Your task to perform on an android device: allow cookies in the chrome app Image 0: 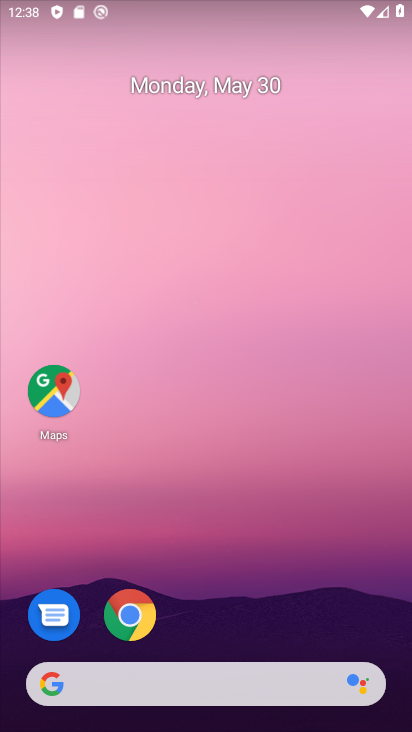
Step 0: click (128, 632)
Your task to perform on an android device: allow cookies in the chrome app Image 1: 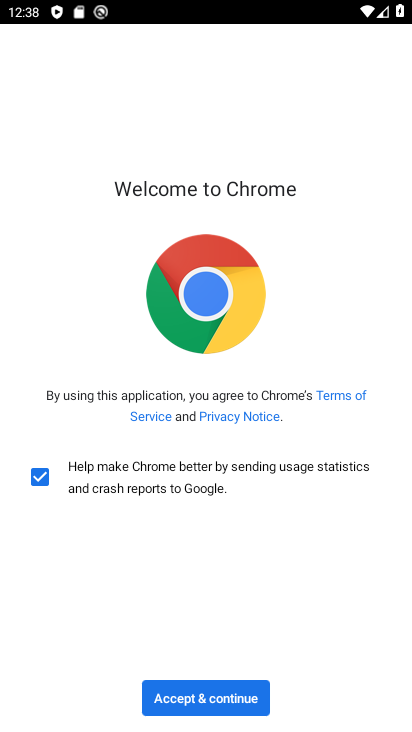
Step 1: click (192, 711)
Your task to perform on an android device: allow cookies in the chrome app Image 2: 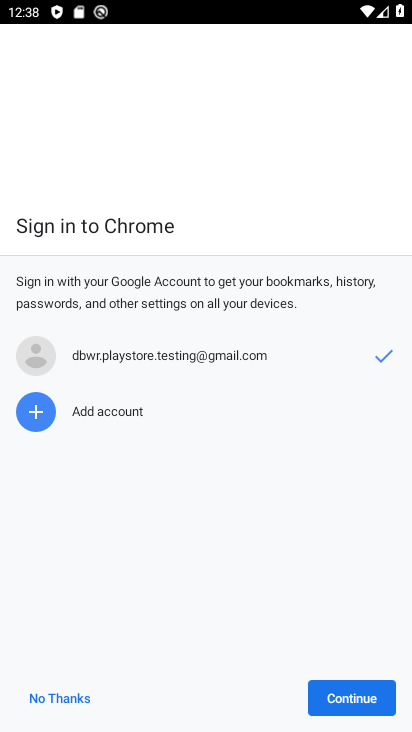
Step 2: click (341, 709)
Your task to perform on an android device: allow cookies in the chrome app Image 3: 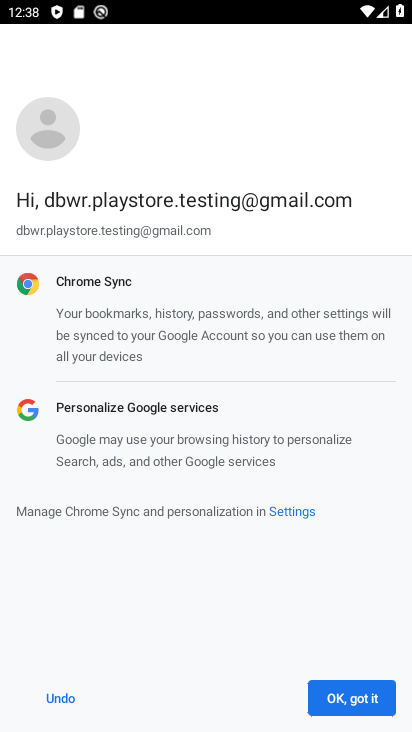
Step 3: click (334, 711)
Your task to perform on an android device: allow cookies in the chrome app Image 4: 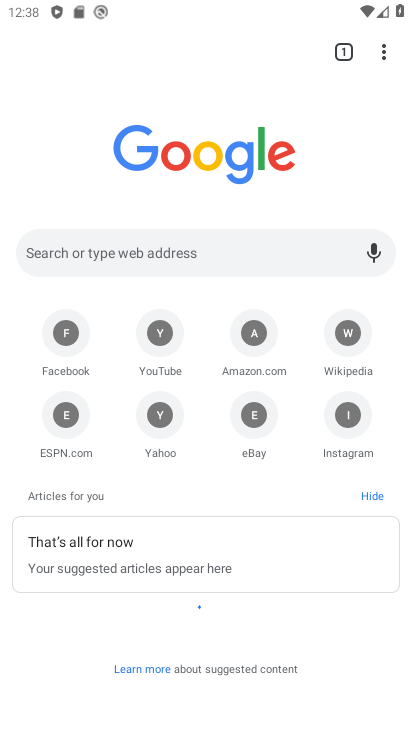
Step 4: click (384, 58)
Your task to perform on an android device: allow cookies in the chrome app Image 5: 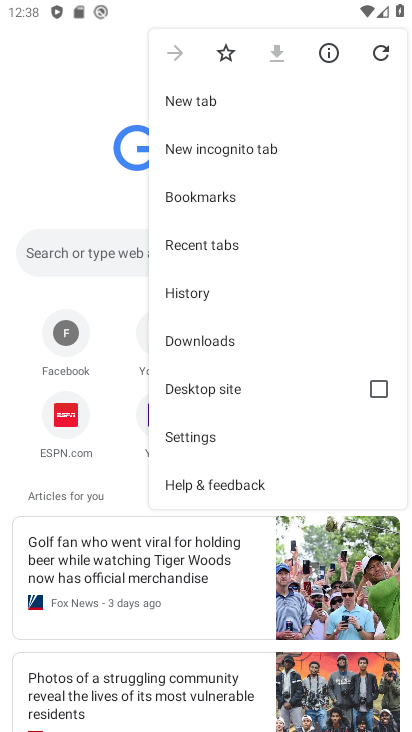
Step 5: click (198, 435)
Your task to perform on an android device: allow cookies in the chrome app Image 6: 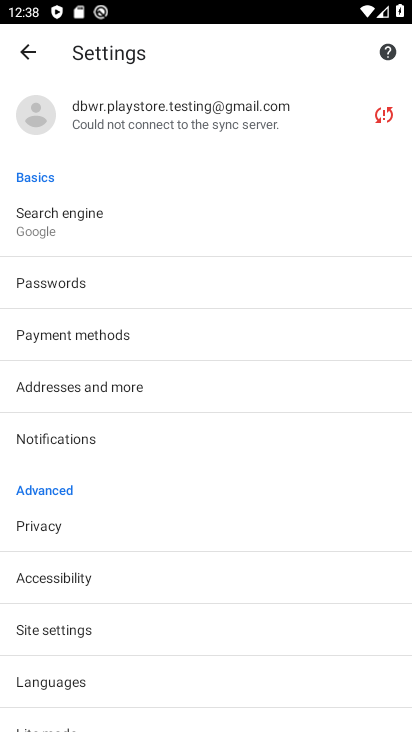
Step 6: click (64, 635)
Your task to perform on an android device: allow cookies in the chrome app Image 7: 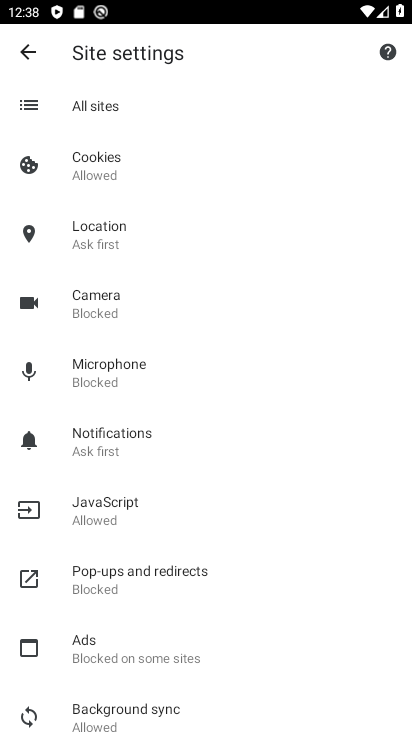
Step 7: click (127, 176)
Your task to perform on an android device: allow cookies in the chrome app Image 8: 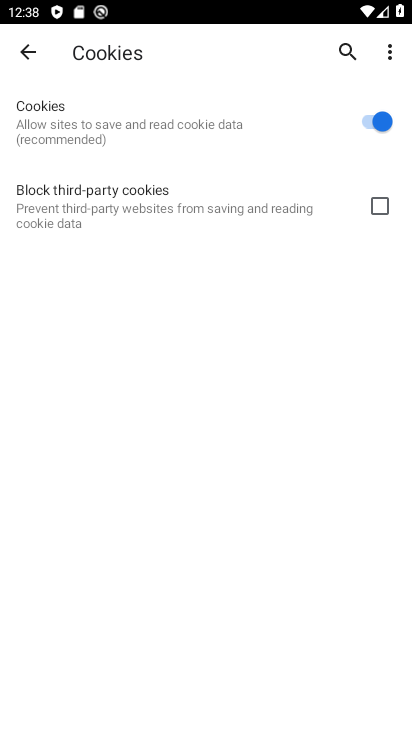
Step 8: task complete